Your task to perform on an android device: Check the weather Image 0: 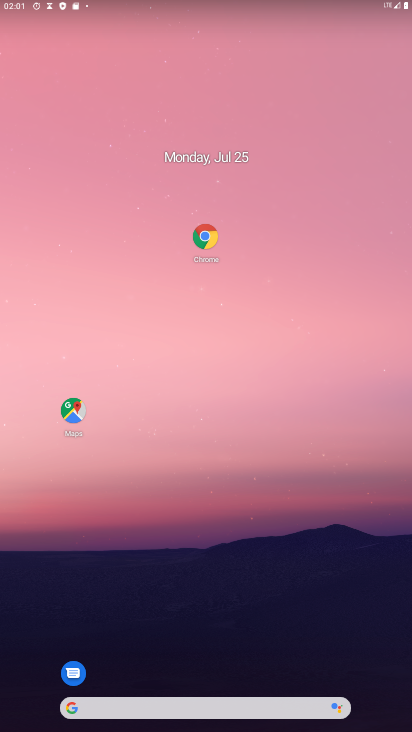
Step 0: drag from (137, 681) to (170, 150)
Your task to perform on an android device: Check the weather Image 1: 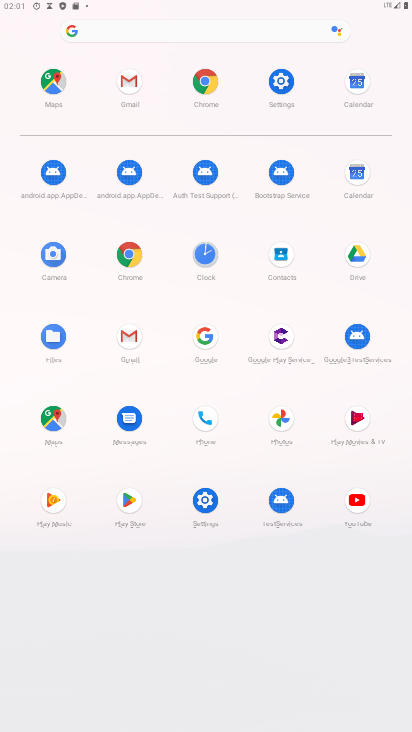
Step 1: click (198, 330)
Your task to perform on an android device: Check the weather Image 2: 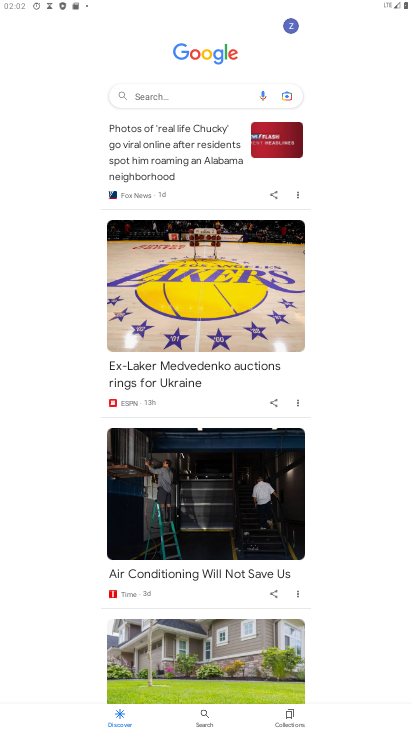
Step 2: click (146, 98)
Your task to perform on an android device: Check the weather Image 3: 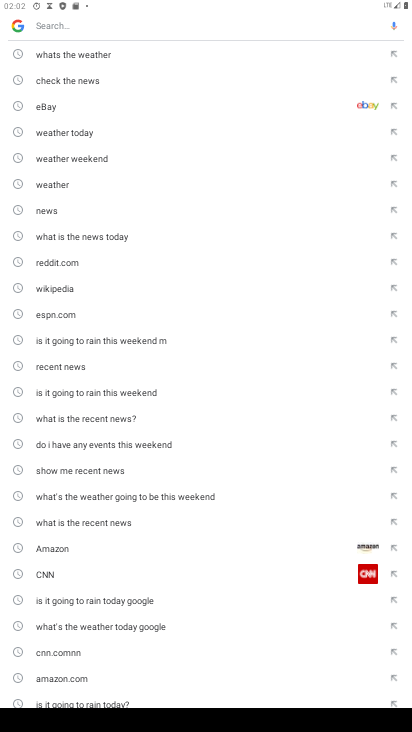
Step 3: click (91, 61)
Your task to perform on an android device: Check the weather Image 4: 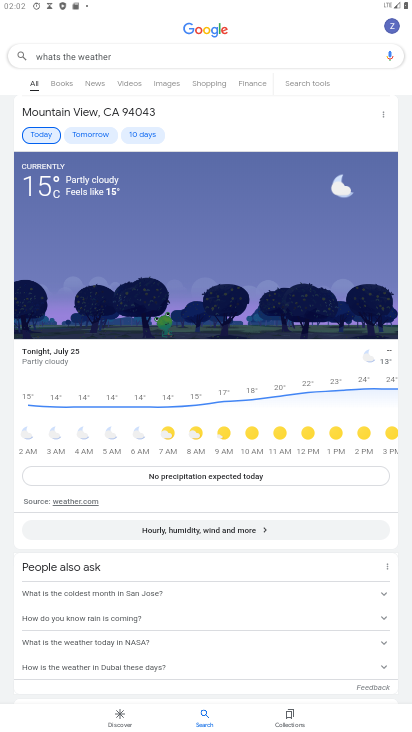
Step 4: task complete